Your task to perform on an android device: Go to privacy settings Image 0: 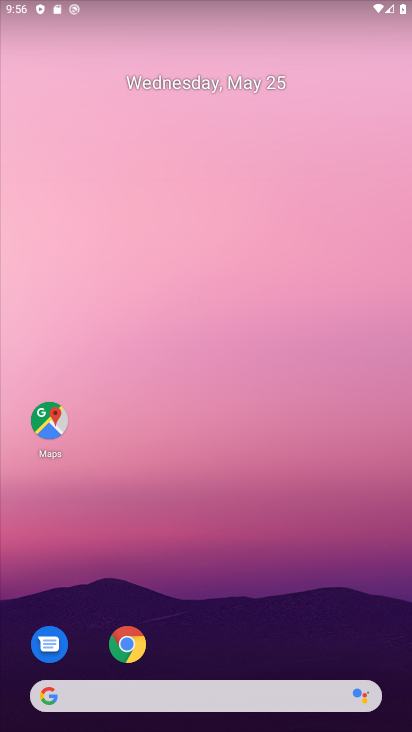
Step 0: drag from (242, 588) to (250, 9)
Your task to perform on an android device: Go to privacy settings Image 1: 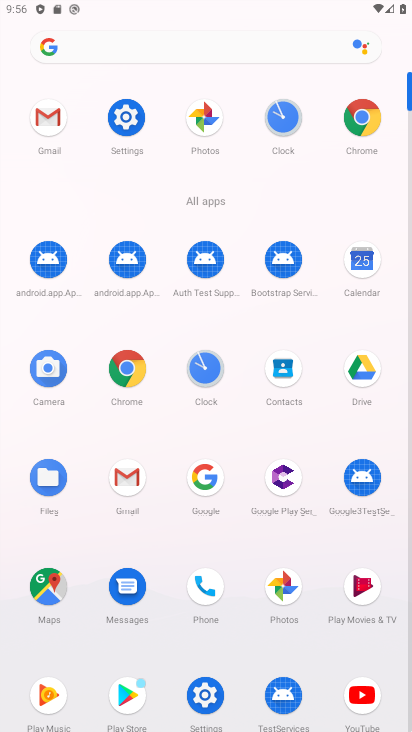
Step 1: click (123, 122)
Your task to perform on an android device: Go to privacy settings Image 2: 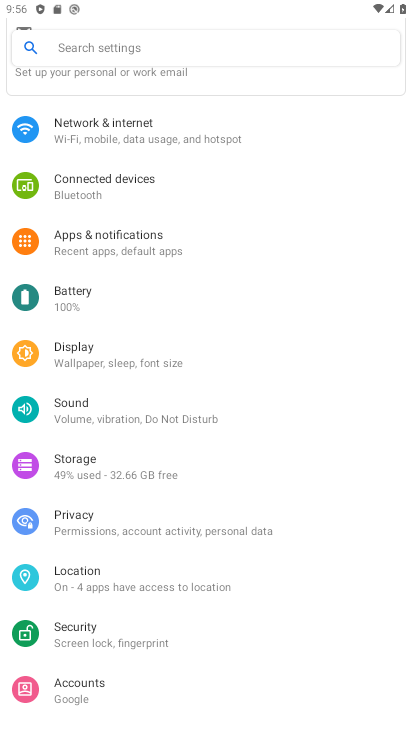
Step 2: click (91, 532)
Your task to perform on an android device: Go to privacy settings Image 3: 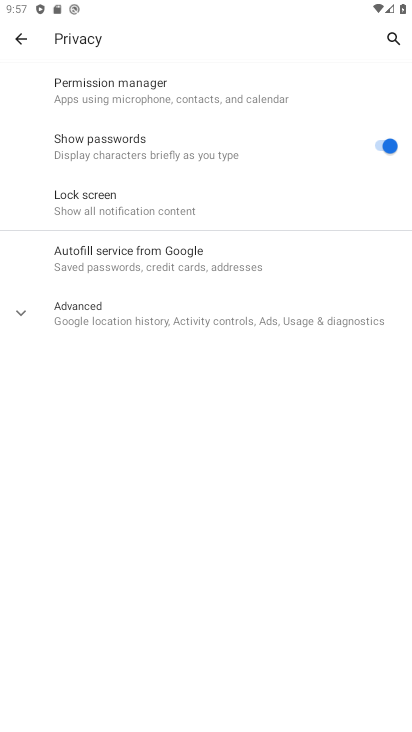
Step 3: task complete